Your task to perform on an android device: Open ESPN.com Image 0: 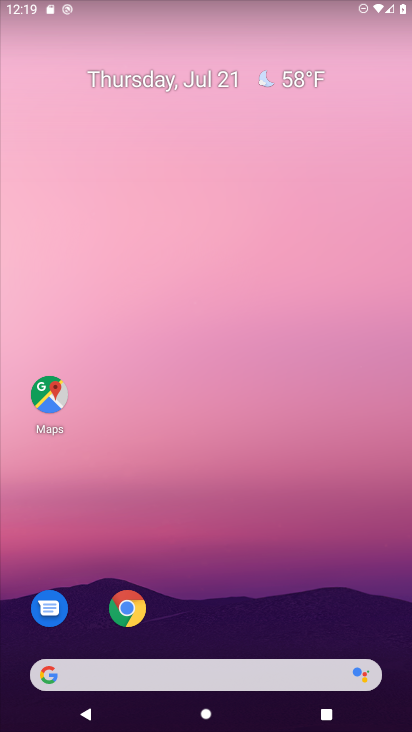
Step 0: press home button
Your task to perform on an android device: Open ESPN.com Image 1: 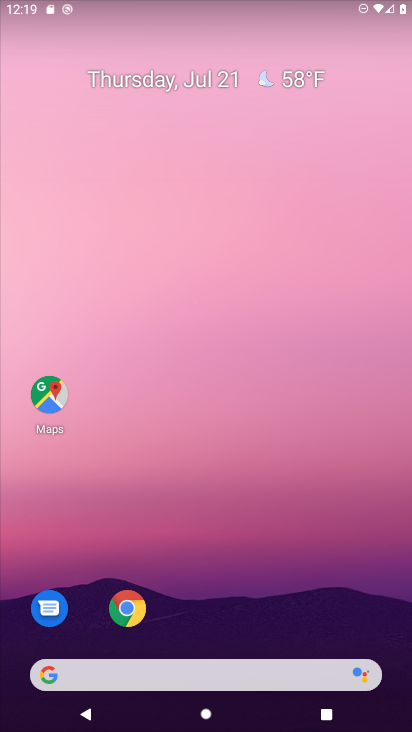
Step 1: click (48, 684)
Your task to perform on an android device: Open ESPN.com Image 2: 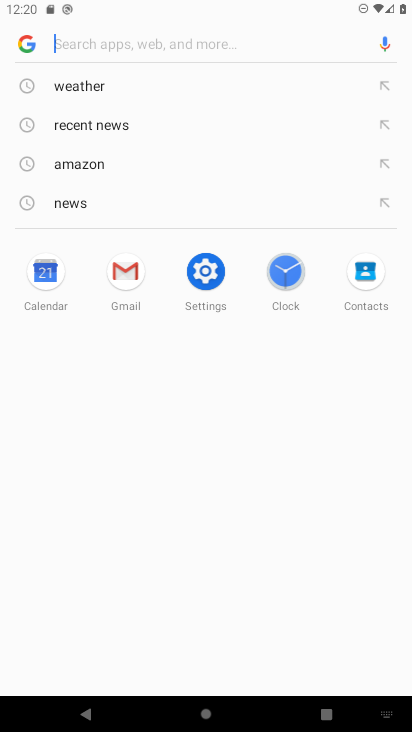
Step 2: type "ESPN.com"
Your task to perform on an android device: Open ESPN.com Image 3: 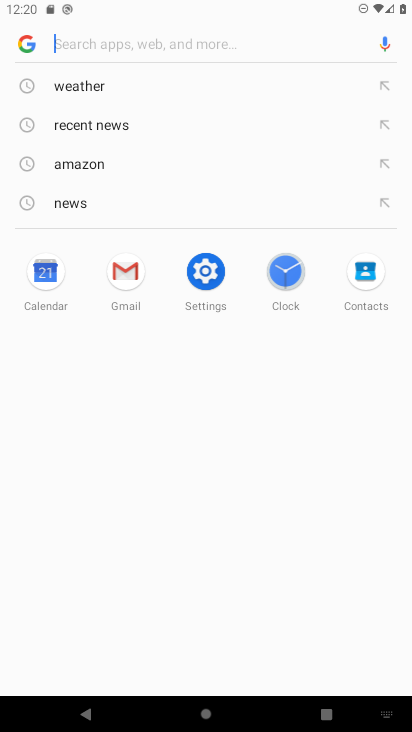
Step 3: click (69, 38)
Your task to perform on an android device: Open ESPN.com Image 4: 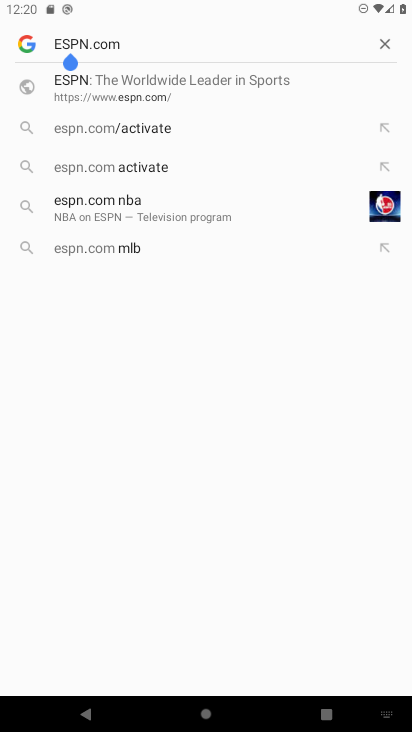
Step 4: click (133, 88)
Your task to perform on an android device: Open ESPN.com Image 5: 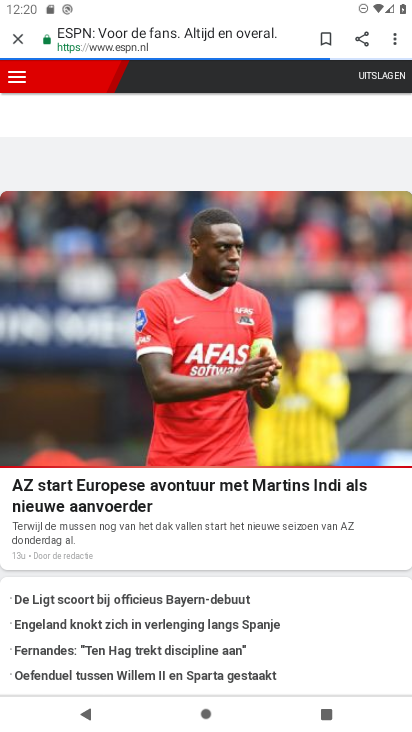
Step 5: press enter
Your task to perform on an android device: Open ESPN.com Image 6: 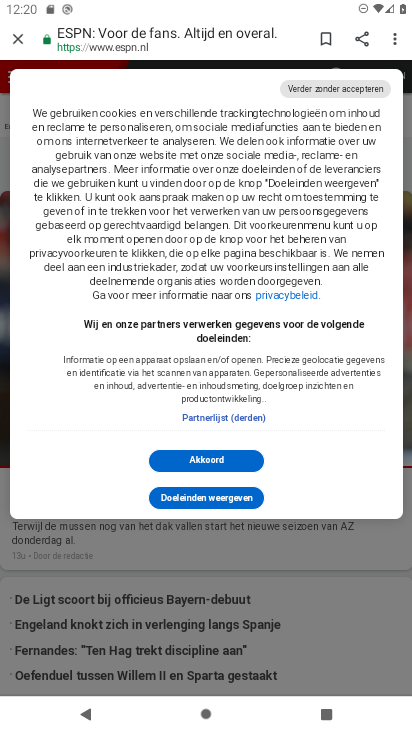
Step 6: click (209, 465)
Your task to perform on an android device: Open ESPN.com Image 7: 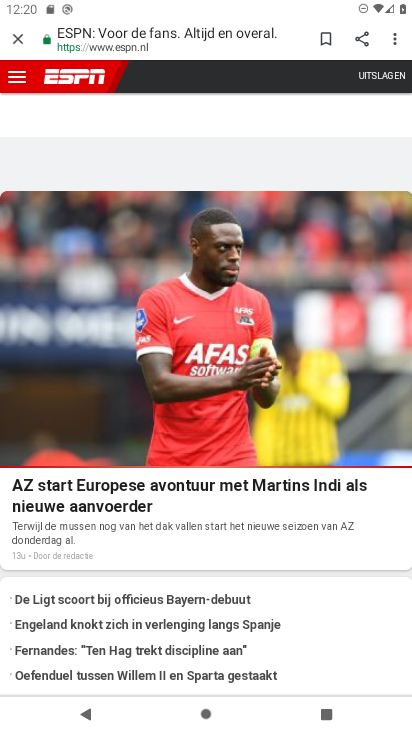
Step 7: task complete